Your task to perform on an android device: toggle priority inbox in the gmail app Image 0: 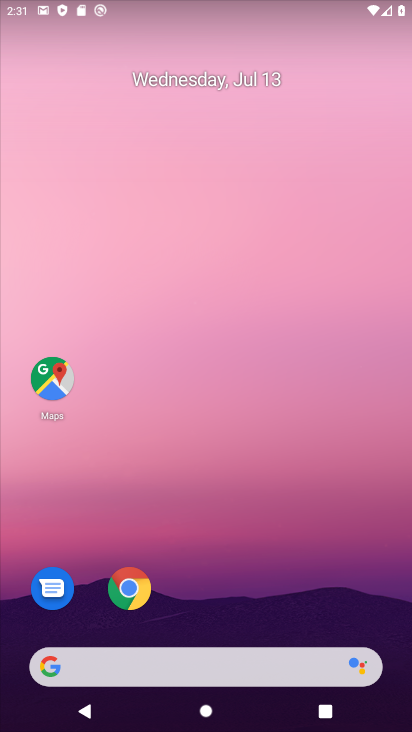
Step 0: drag from (292, 675) to (218, 173)
Your task to perform on an android device: toggle priority inbox in the gmail app Image 1: 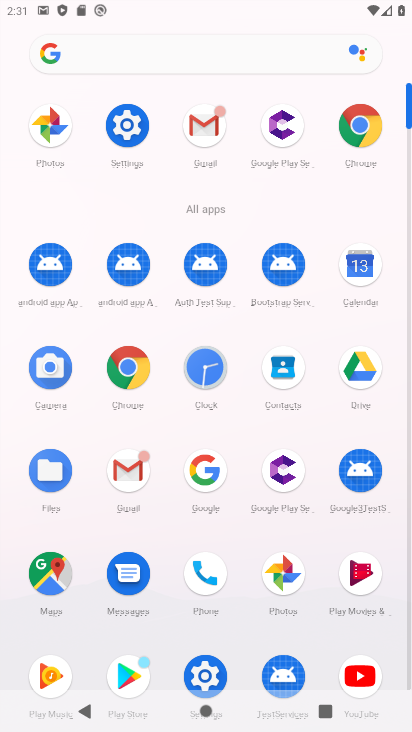
Step 1: click (130, 465)
Your task to perform on an android device: toggle priority inbox in the gmail app Image 2: 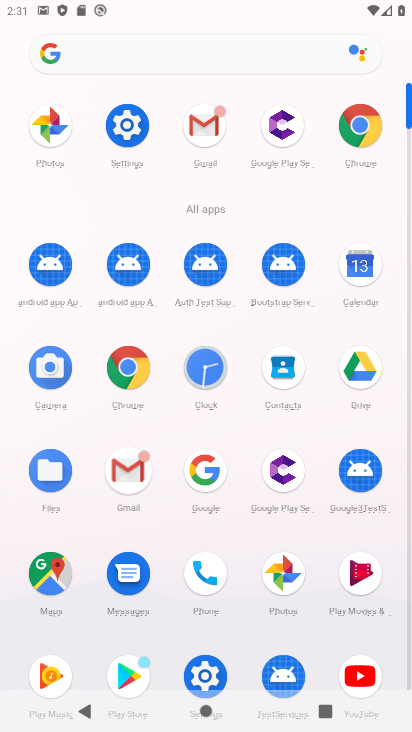
Step 2: click (129, 465)
Your task to perform on an android device: toggle priority inbox in the gmail app Image 3: 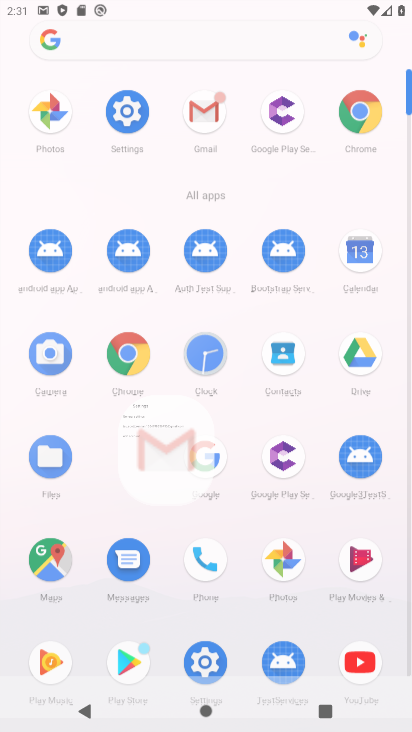
Step 3: click (129, 467)
Your task to perform on an android device: toggle priority inbox in the gmail app Image 4: 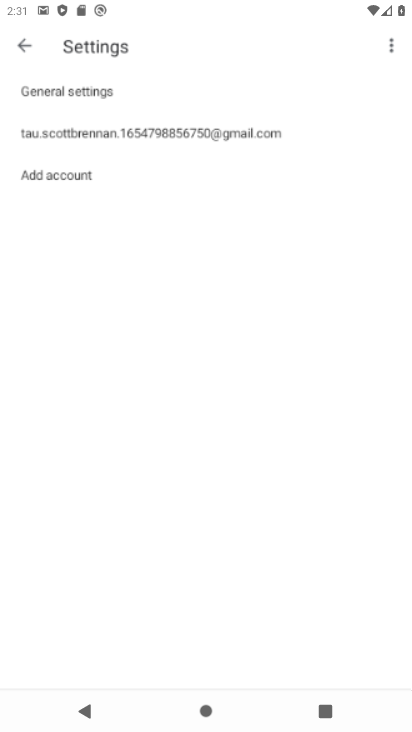
Step 4: click (131, 472)
Your task to perform on an android device: toggle priority inbox in the gmail app Image 5: 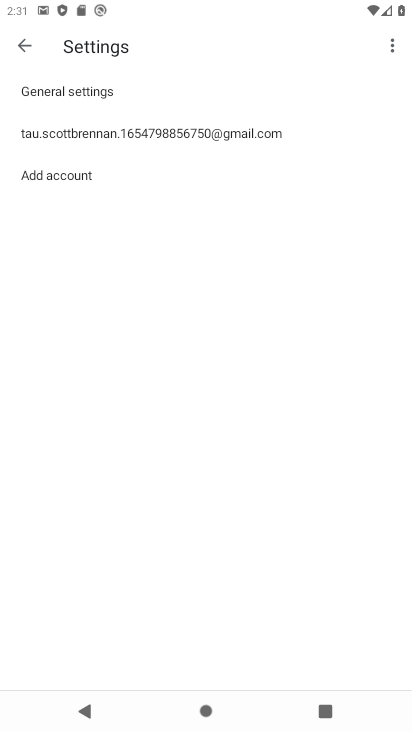
Step 5: click (131, 472)
Your task to perform on an android device: toggle priority inbox in the gmail app Image 6: 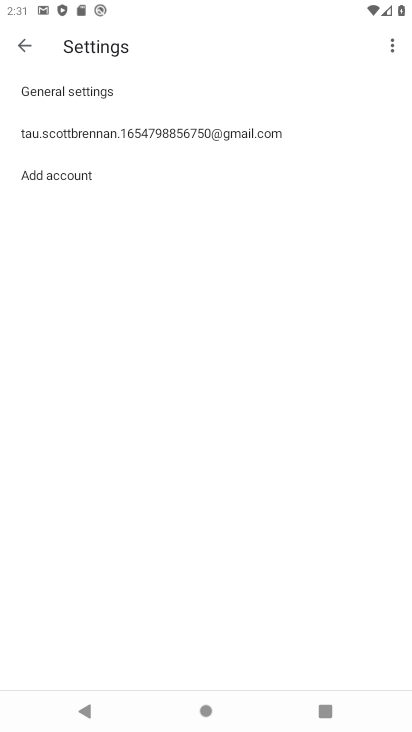
Step 6: click (91, 123)
Your task to perform on an android device: toggle priority inbox in the gmail app Image 7: 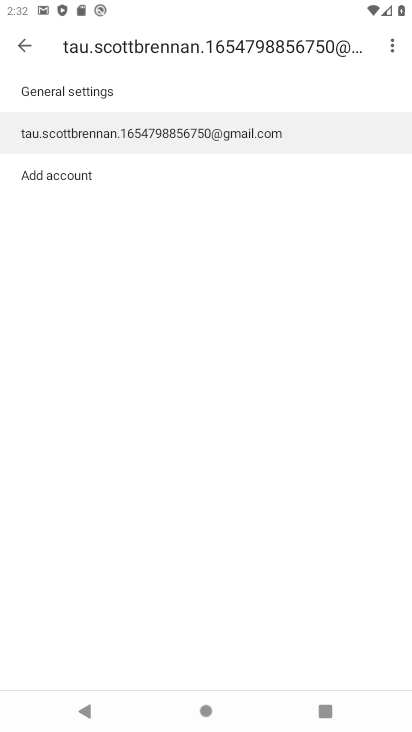
Step 7: click (92, 126)
Your task to perform on an android device: toggle priority inbox in the gmail app Image 8: 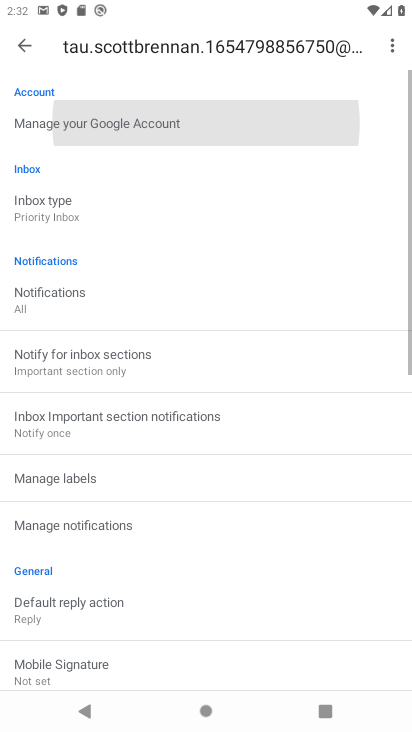
Step 8: click (92, 126)
Your task to perform on an android device: toggle priority inbox in the gmail app Image 9: 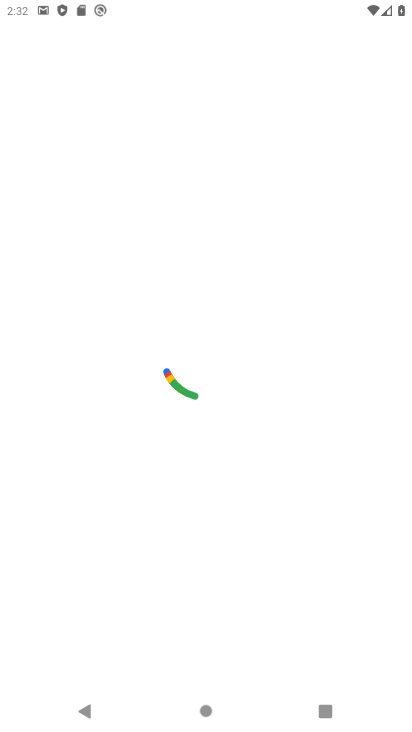
Step 9: press back button
Your task to perform on an android device: toggle priority inbox in the gmail app Image 10: 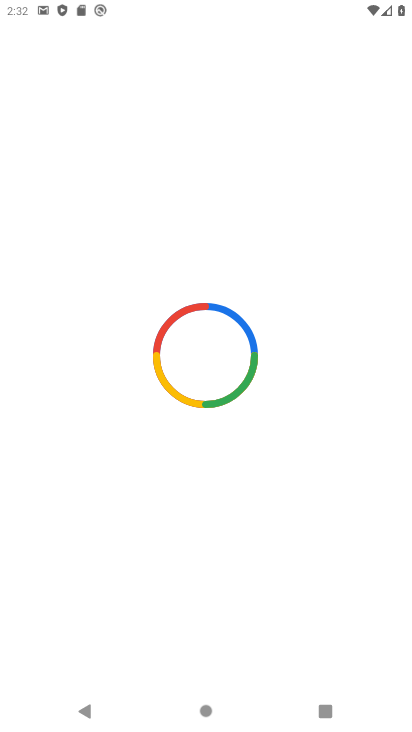
Step 10: press home button
Your task to perform on an android device: toggle priority inbox in the gmail app Image 11: 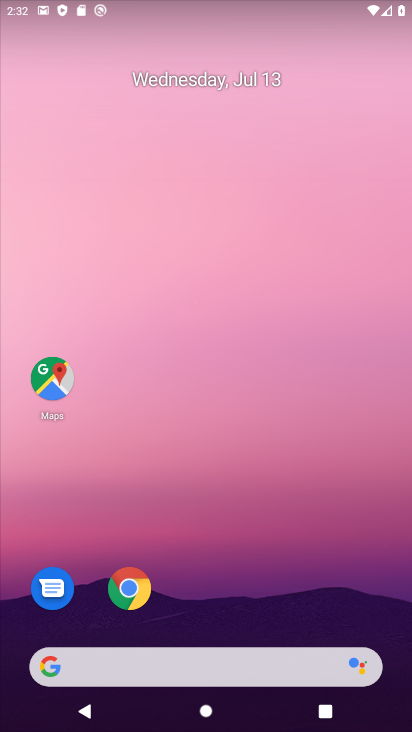
Step 11: drag from (214, 595) to (63, 21)
Your task to perform on an android device: toggle priority inbox in the gmail app Image 12: 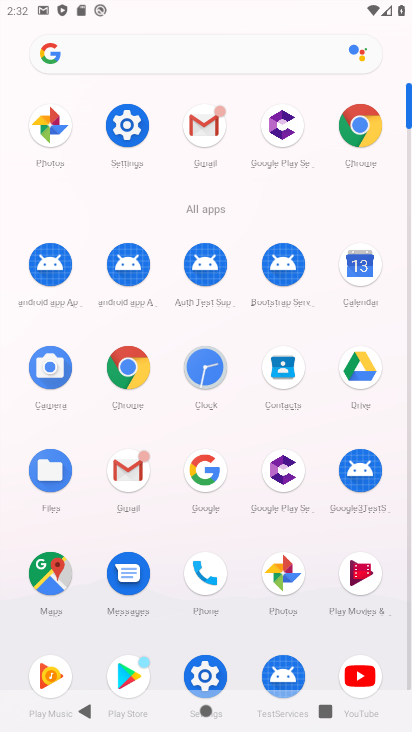
Step 12: click (127, 471)
Your task to perform on an android device: toggle priority inbox in the gmail app Image 13: 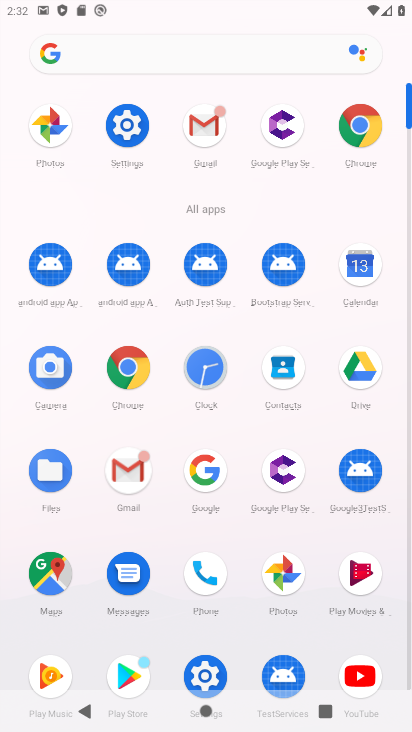
Step 13: click (130, 470)
Your task to perform on an android device: toggle priority inbox in the gmail app Image 14: 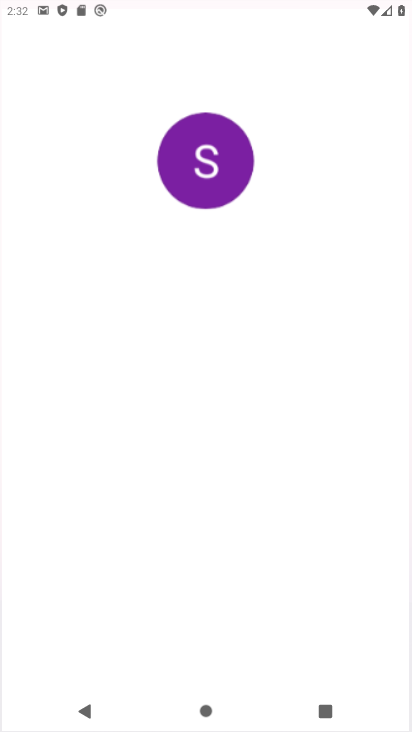
Step 14: click (133, 472)
Your task to perform on an android device: toggle priority inbox in the gmail app Image 15: 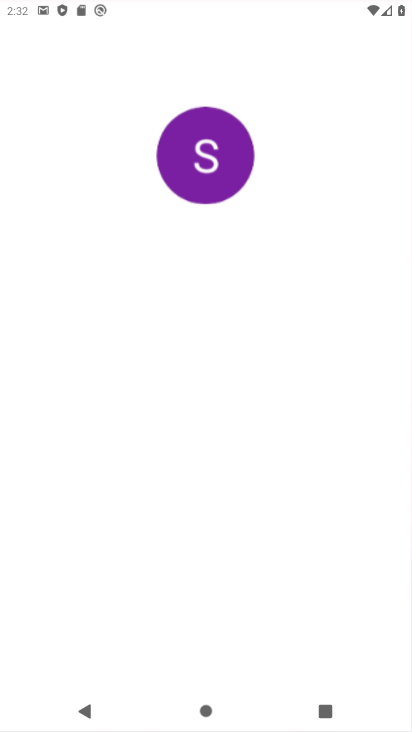
Step 15: click (133, 472)
Your task to perform on an android device: toggle priority inbox in the gmail app Image 16: 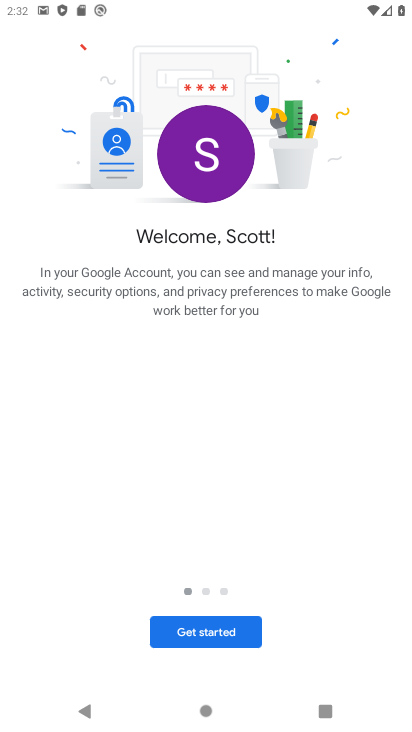
Step 16: click (243, 628)
Your task to perform on an android device: toggle priority inbox in the gmail app Image 17: 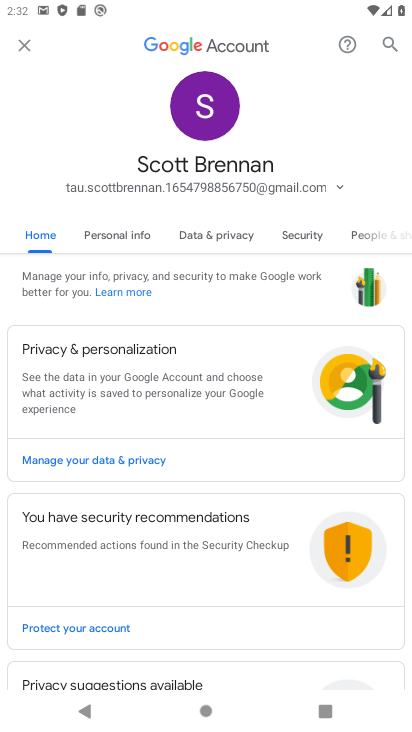
Step 17: click (18, 16)
Your task to perform on an android device: toggle priority inbox in the gmail app Image 18: 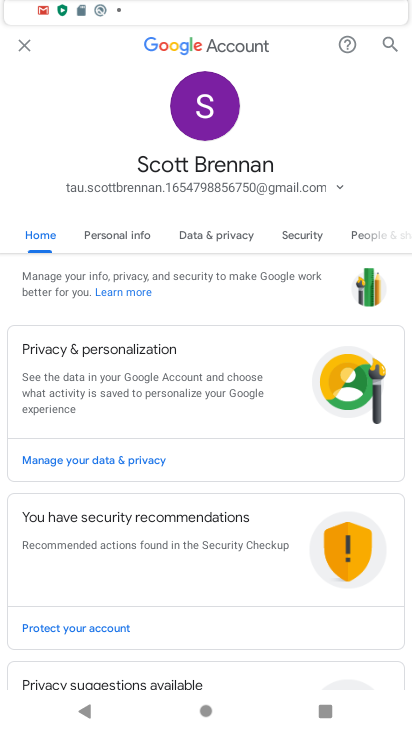
Step 18: click (22, 37)
Your task to perform on an android device: toggle priority inbox in the gmail app Image 19: 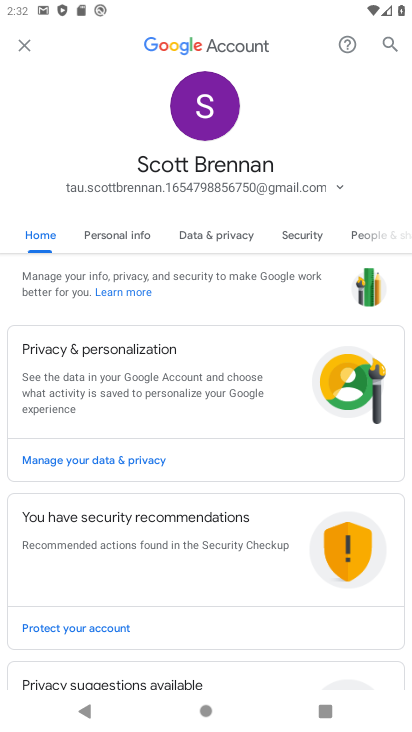
Step 19: click (22, 37)
Your task to perform on an android device: toggle priority inbox in the gmail app Image 20: 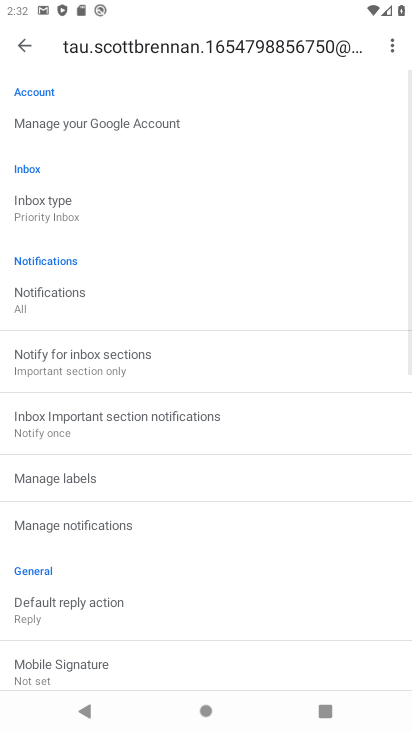
Step 20: click (22, 39)
Your task to perform on an android device: toggle priority inbox in the gmail app Image 21: 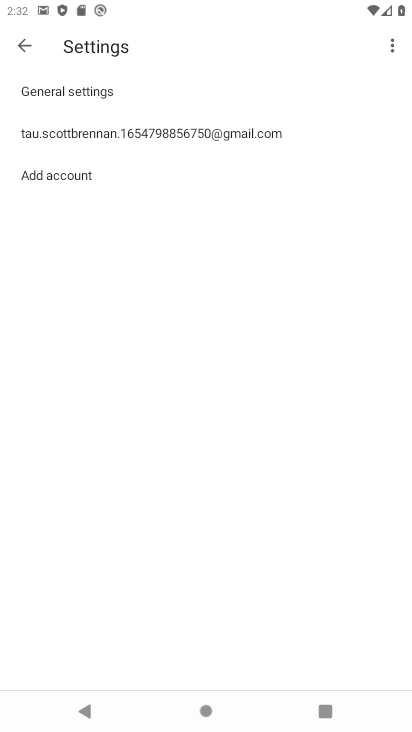
Step 21: click (96, 129)
Your task to perform on an android device: toggle priority inbox in the gmail app Image 22: 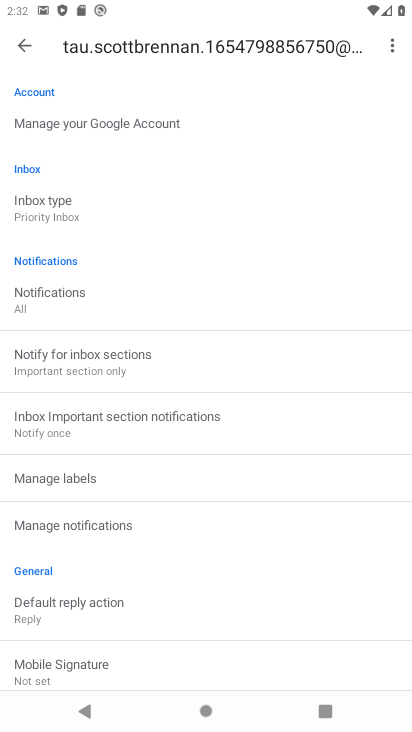
Step 22: click (53, 202)
Your task to perform on an android device: toggle priority inbox in the gmail app Image 23: 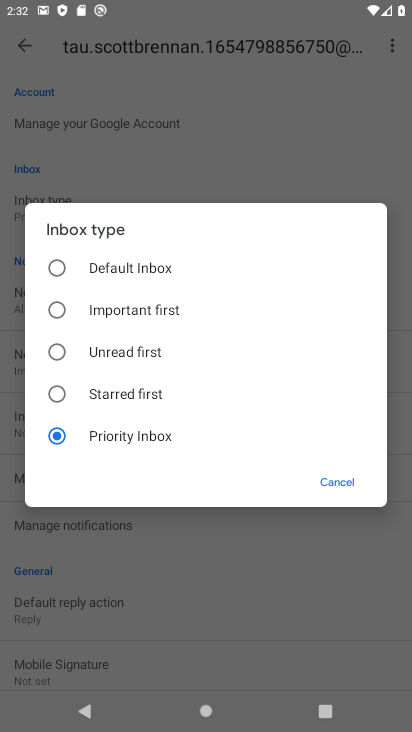
Step 23: click (324, 475)
Your task to perform on an android device: toggle priority inbox in the gmail app Image 24: 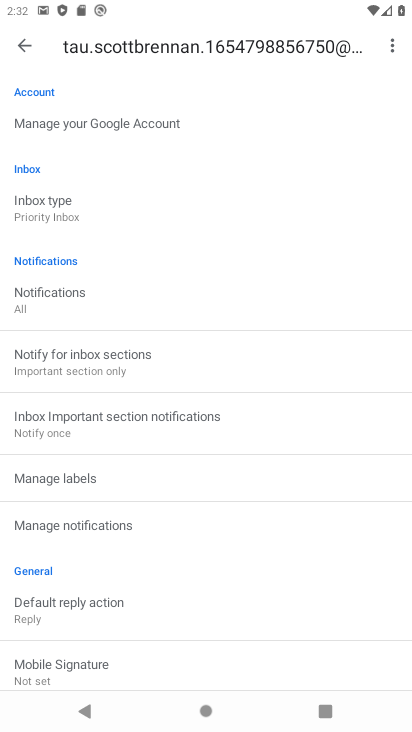
Step 24: task complete